Your task to perform on an android device: check google app version Image 0: 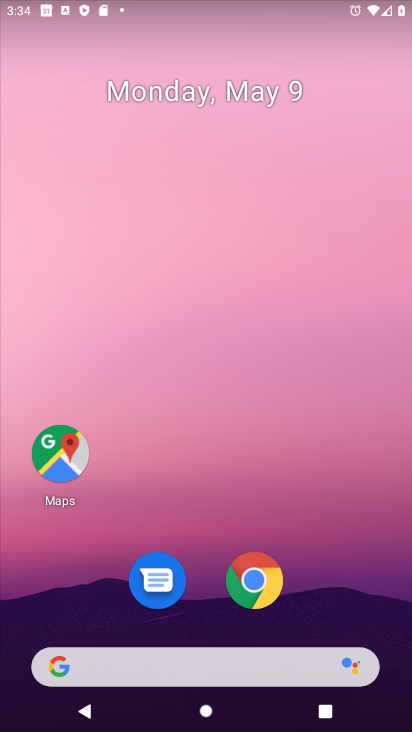
Step 0: drag from (327, 517) to (221, 54)
Your task to perform on an android device: check google app version Image 1: 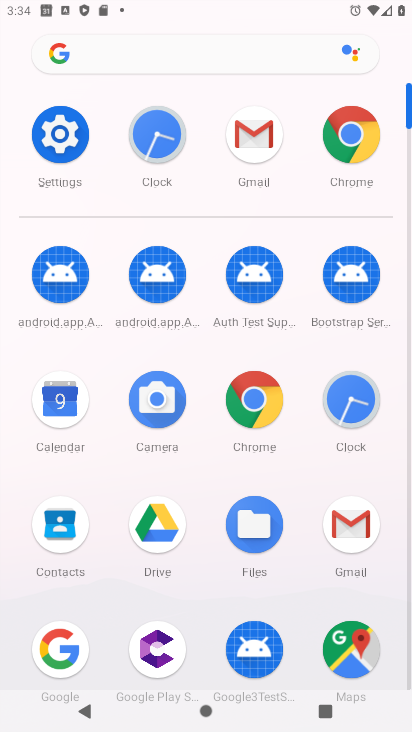
Step 1: click (59, 636)
Your task to perform on an android device: check google app version Image 2: 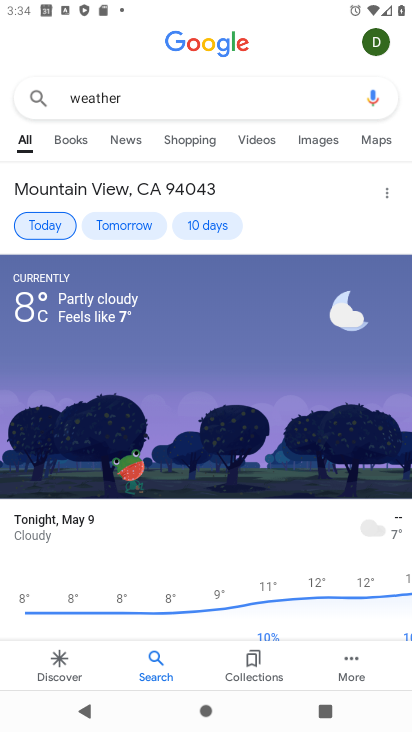
Step 2: click (350, 657)
Your task to perform on an android device: check google app version Image 3: 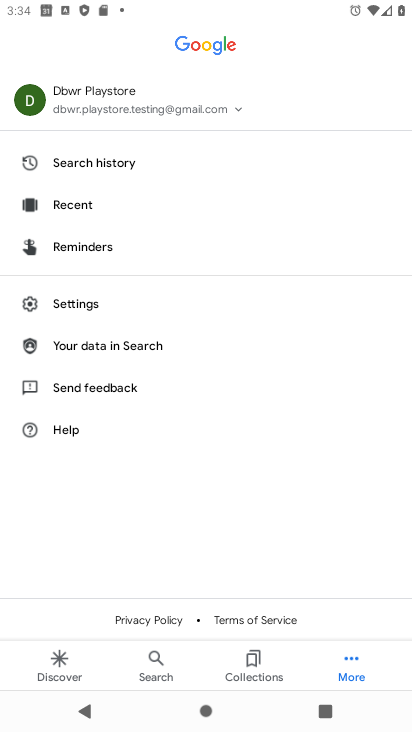
Step 3: click (107, 301)
Your task to perform on an android device: check google app version Image 4: 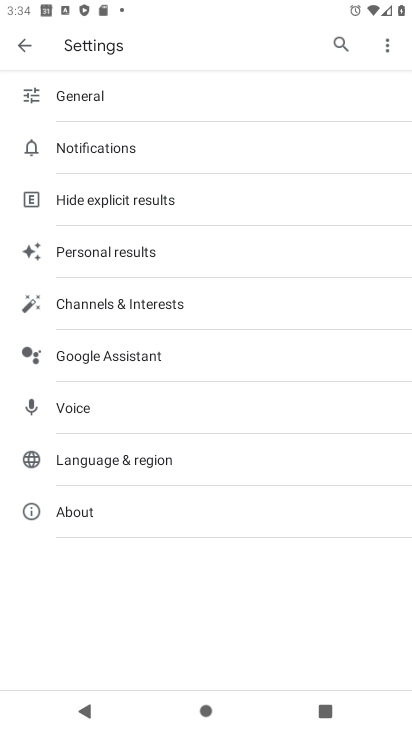
Step 4: click (90, 511)
Your task to perform on an android device: check google app version Image 5: 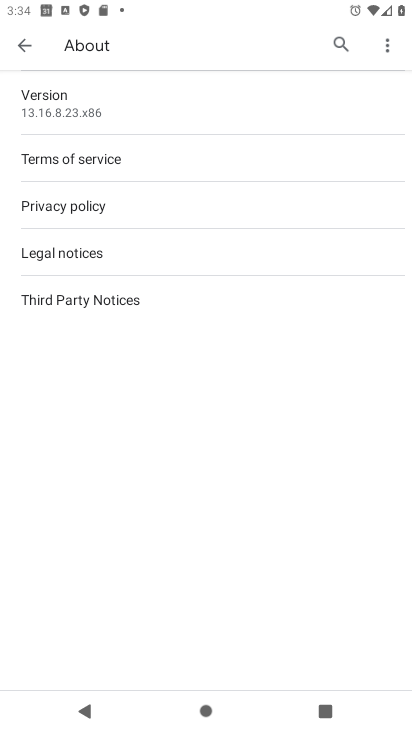
Step 5: click (109, 103)
Your task to perform on an android device: check google app version Image 6: 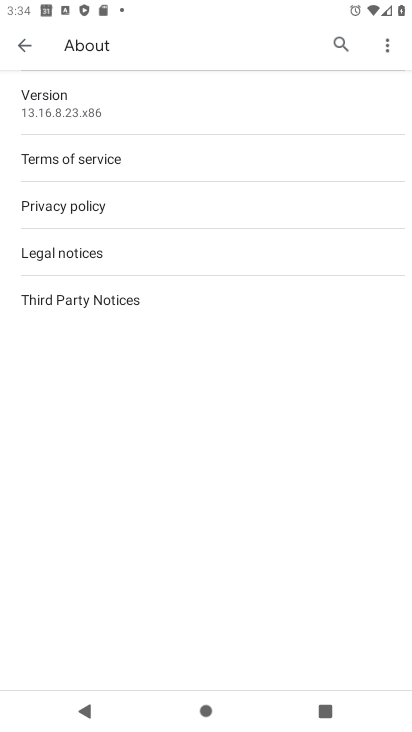
Step 6: task complete